Your task to perform on an android device: open the mobile data screen to see how much data has been used Image 0: 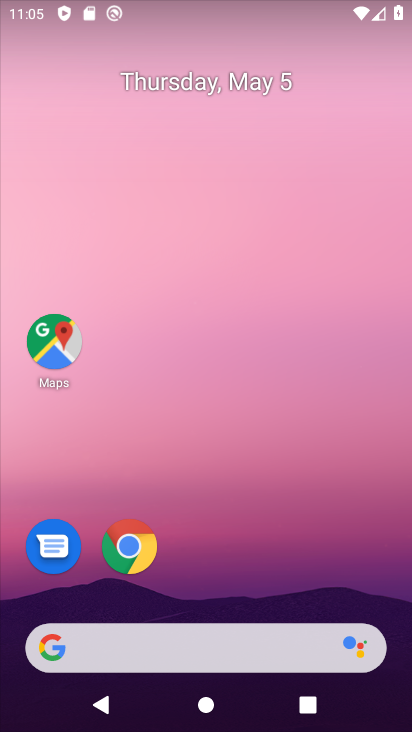
Step 0: drag from (68, 558) to (304, 117)
Your task to perform on an android device: open the mobile data screen to see how much data has been used Image 1: 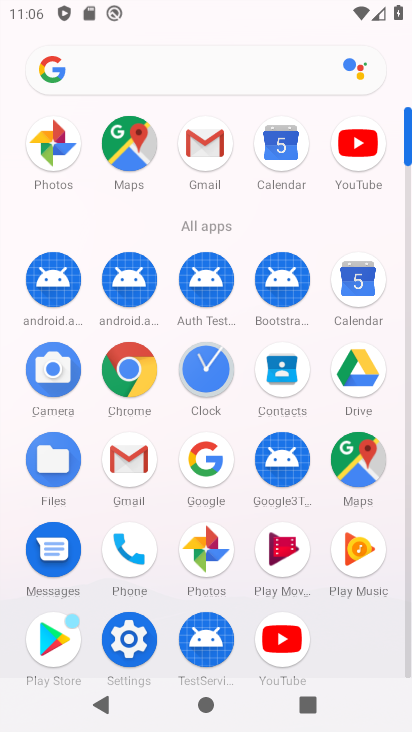
Step 1: click (115, 643)
Your task to perform on an android device: open the mobile data screen to see how much data has been used Image 2: 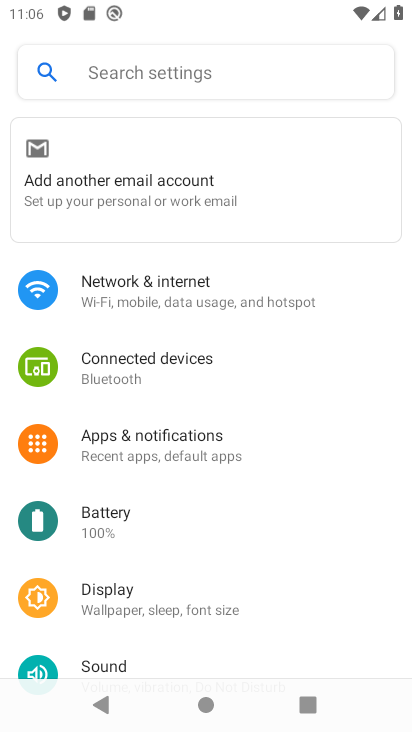
Step 2: click (187, 282)
Your task to perform on an android device: open the mobile data screen to see how much data has been used Image 3: 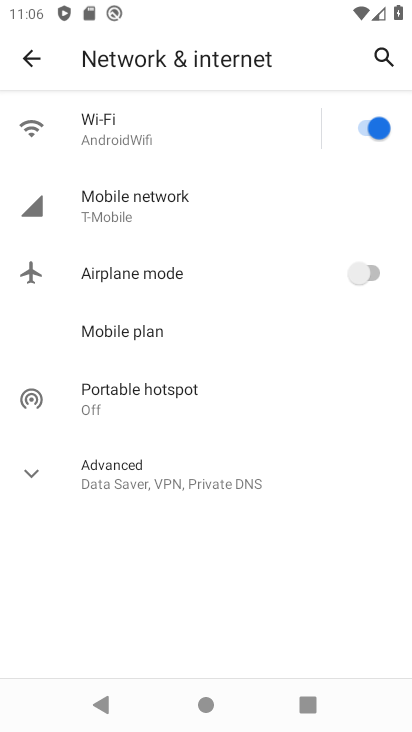
Step 3: click (217, 197)
Your task to perform on an android device: open the mobile data screen to see how much data has been used Image 4: 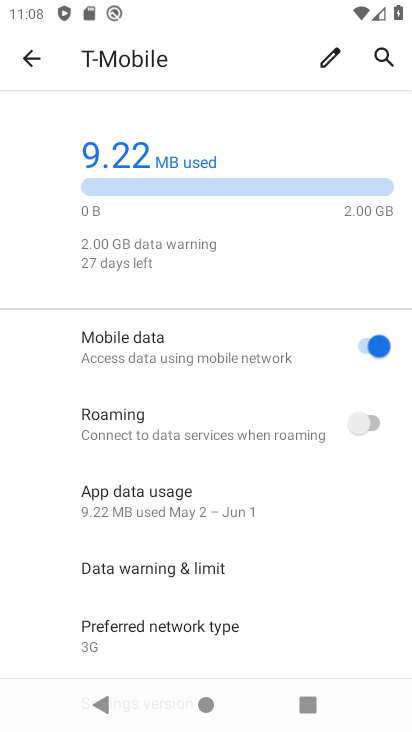
Step 4: task complete